Your task to perform on an android device: Open calendar and show me the first week of next month Image 0: 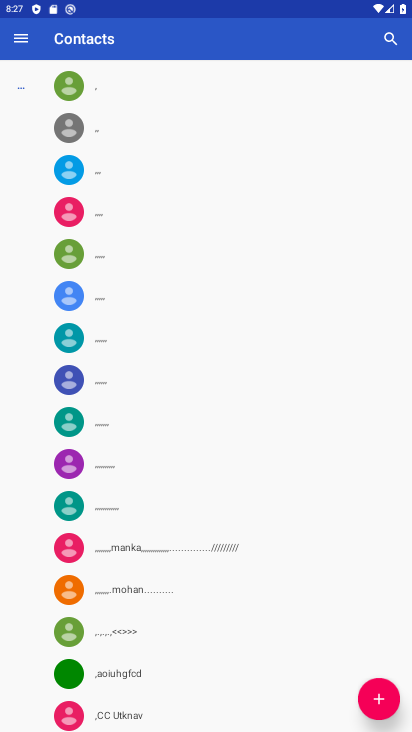
Step 0: press back button
Your task to perform on an android device: Open calendar and show me the first week of next month Image 1: 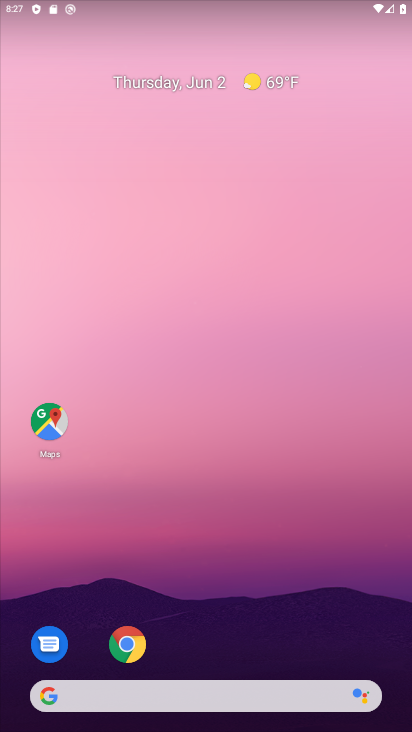
Step 1: drag from (204, 618) to (139, 22)
Your task to perform on an android device: Open calendar and show me the first week of next month Image 2: 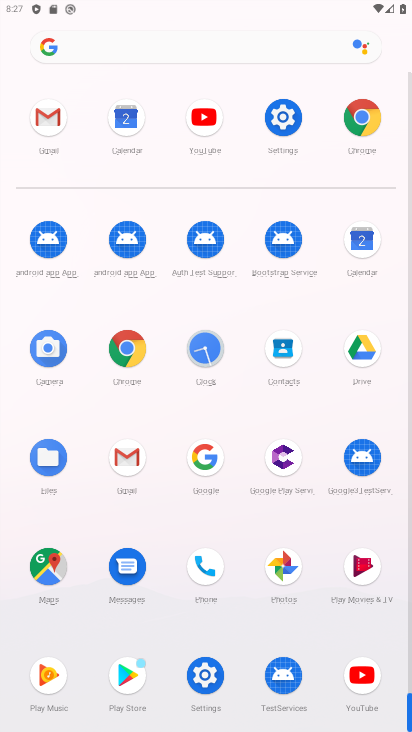
Step 2: click (364, 234)
Your task to perform on an android device: Open calendar and show me the first week of next month Image 3: 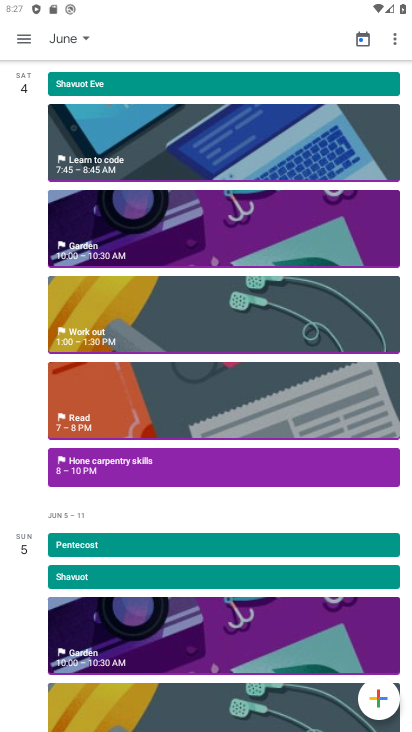
Step 3: click (75, 42)
Your task to perform on an android device: Open calendar and show me the first week of next month Image 4: 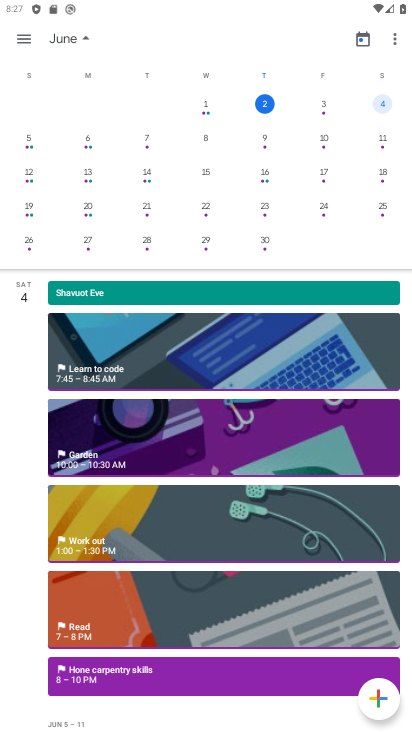
Step 4: drag from (366, 186) to (3, 170)
Your task to perform on an android device: Open calendar and show me the first week of next month Image 5: 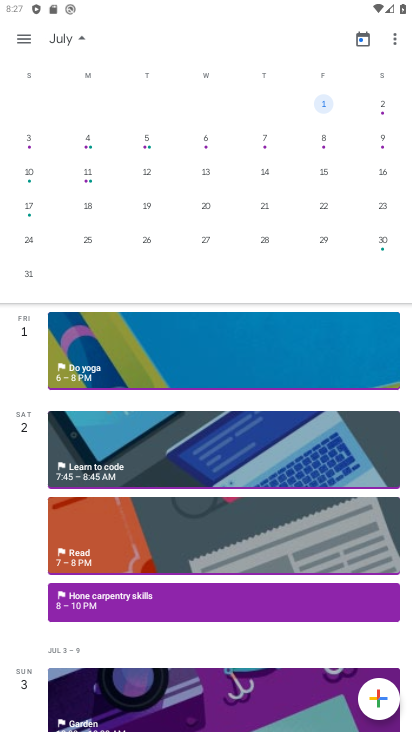
Step 5: click (27, 137)
Your task to perform on an android device: Open calendar and show me the first week of next month Image 6: 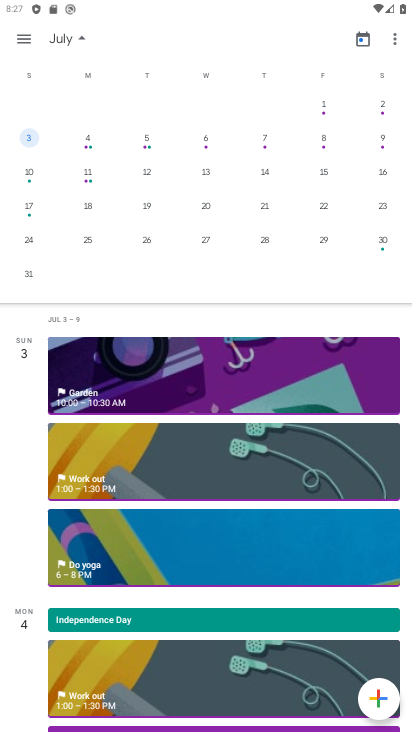
Step 6: click (20, 38)
Your task to perform on an android device: Open calendar and show me the first week of next month Image 7: 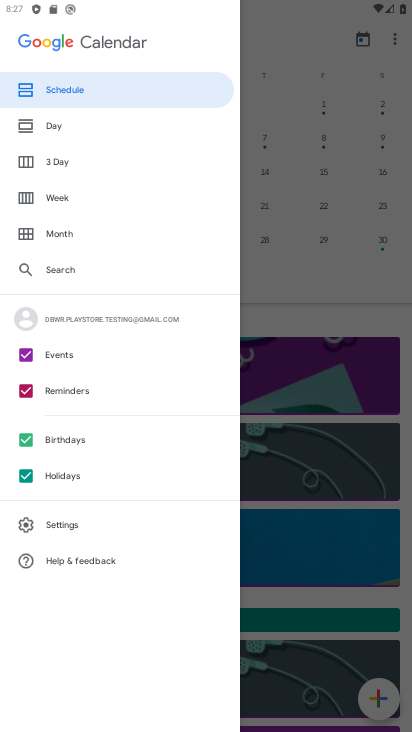
Step 7: click (72, 193)
Your task to perform on an android device: Open calendar and show me the first week of next month Image 8: 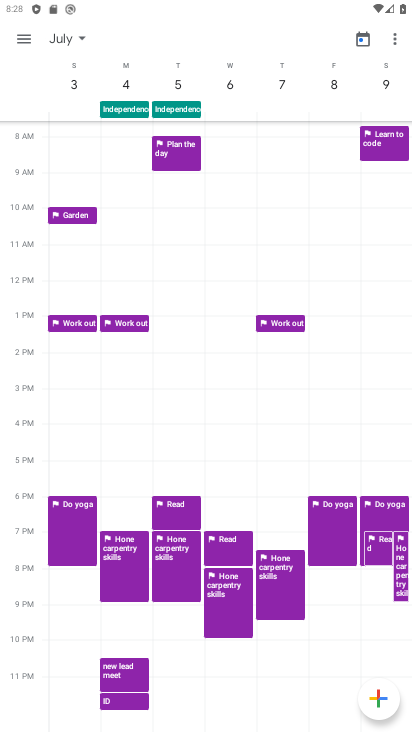
Step 8: task complete